Your task to perform on an android device: Open wifi settings Image 0: 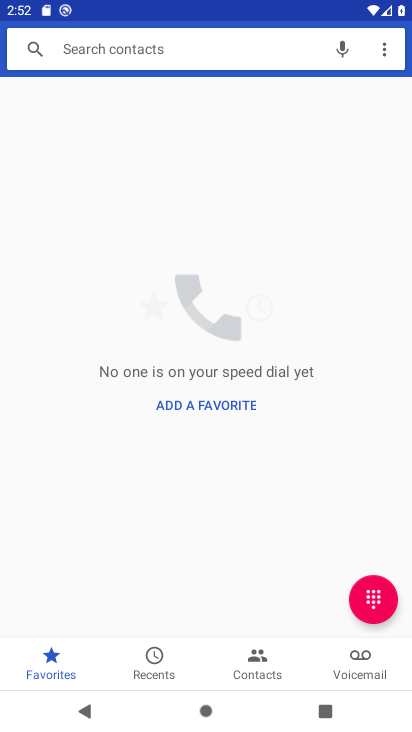
Step 0: drag from (81, 11) to (168, 436)
Your task to perform on an android device: Open wifi settings Image 1: 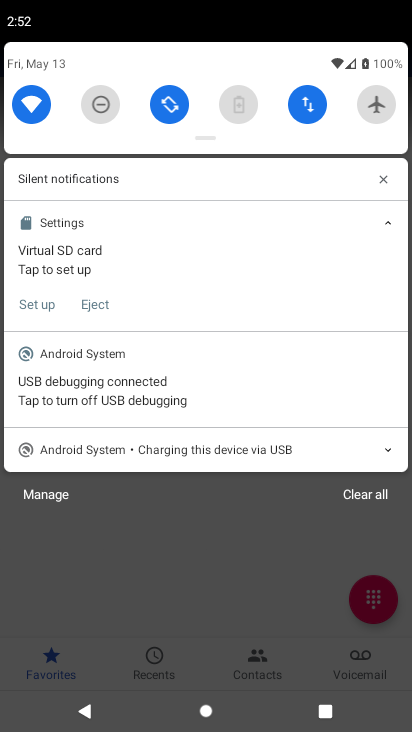
Step 1: click (23, 102)
Your task to perform on an android device: Open wifi settings Image 2: 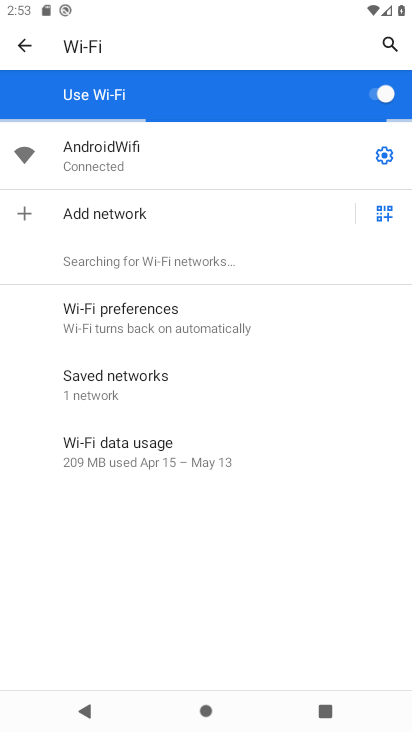
Step 2: task complete